Your task to perform on an android device: Empty the shopping cart on newegg.com. Image 0: 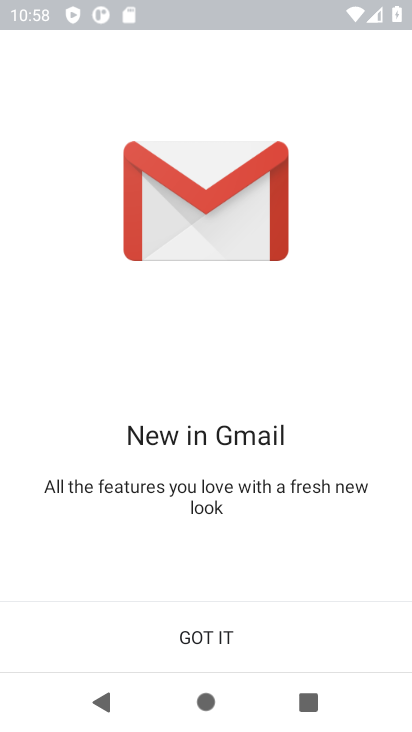
Step 0: press home button
Your task to perform on an android device: Empty the shopping cart on newegg.com. Image 1: 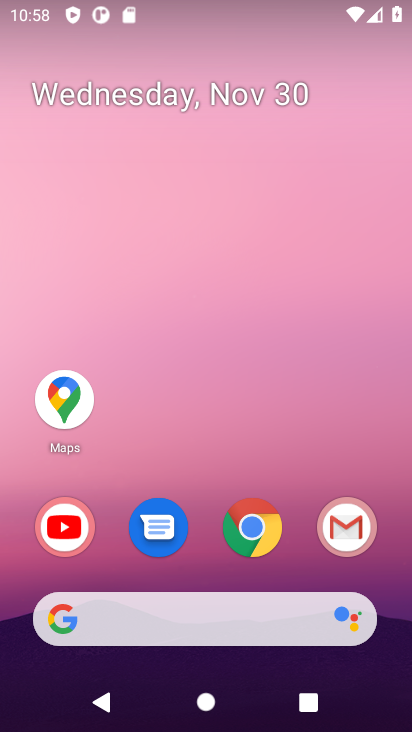
Step 1: click (252, 532)
Your task to perform on an android device: Empty the shopping cart on newegg.com. Image 2: 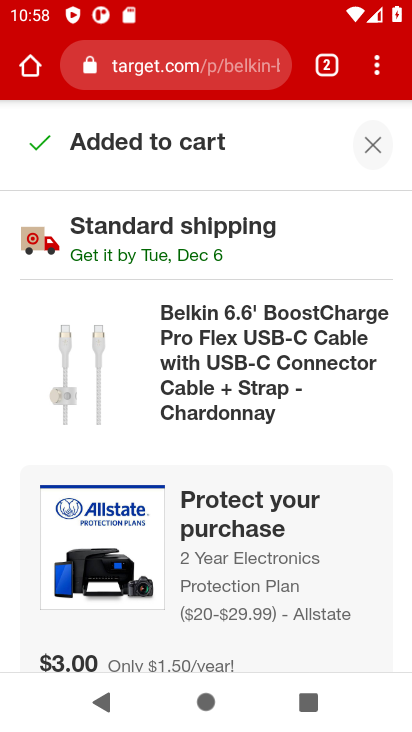
Step 2: click (153, 73)
Your task to perform on an android device: Empty the shopping cart on newegg.com. Image 3: 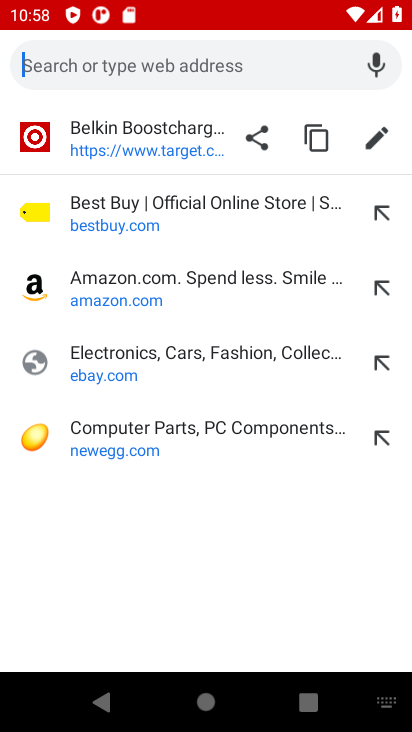
Step 3: click (90, 450)
Your task to perform on an android device: Empty the shopping cart on newegg.com. Image 4: 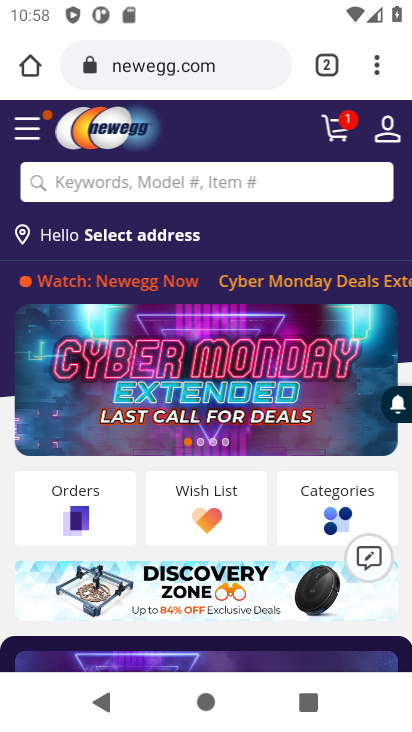
Step 4: click (335, 123)
Your task to perform on an android device: Empty the shopping cart on newegg.com. Image 5: 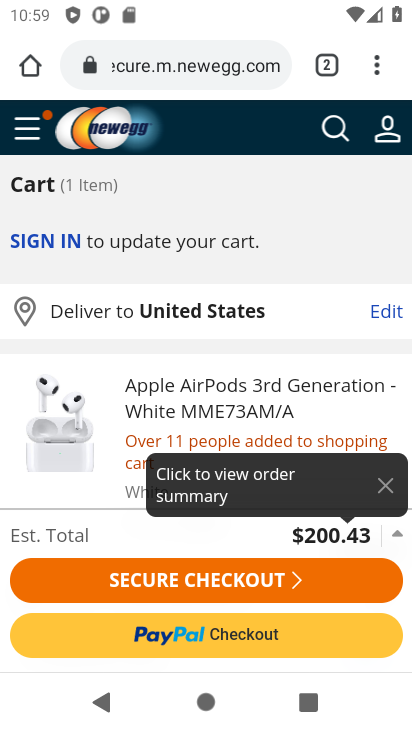
Step 5: drag from (213, 411) to (216, 215)
Your task to perform on an android device: Empty the shopping cart on newegg.com. Image 6: 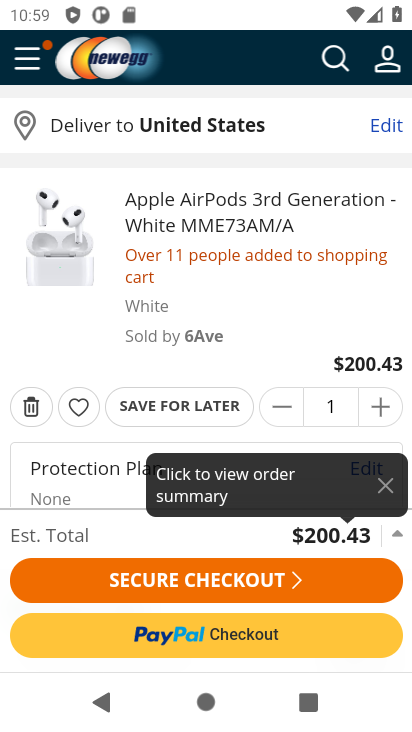
Step 6: click (31, 411)
Your task to perform on an android device: Empty the shopping cart on newegg.com. Image 7: 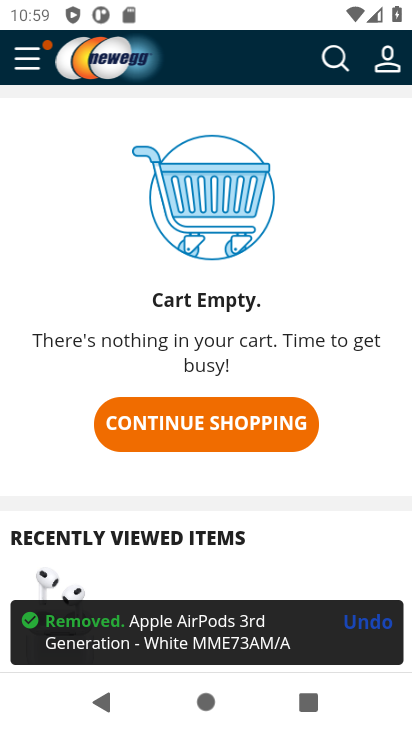
Step 7: task complete